Your task to perform on an android device: What is the recent news? Image 0: 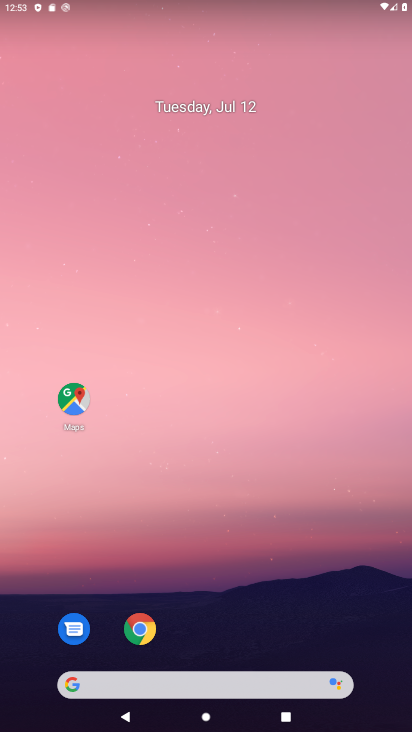
Step 0: drag from (5, 254) to (337, 303)
Your task to perform on an android device: What is the recent news? Image 1: 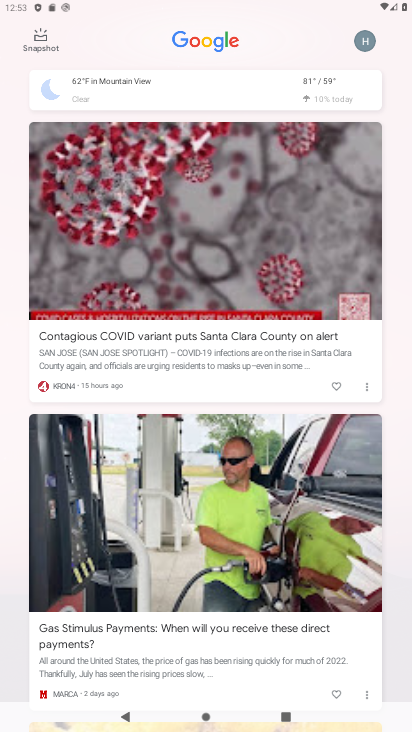
Step 1: click (283, 595)
Your task to perform on an android device: What is the recent news? Image 2: 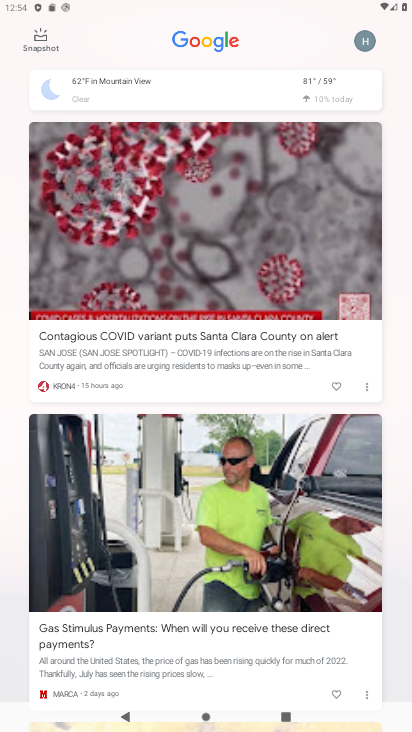
Step 2: task complete